Your task to perform on an android device: What's the weather like in Los Angeles? Image 0: 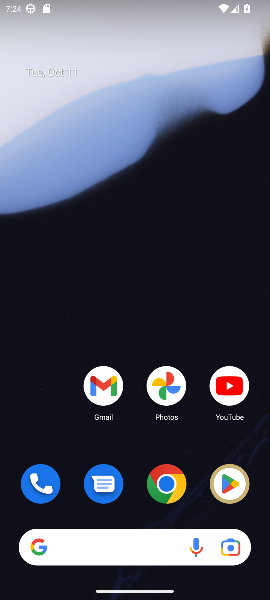
Step 0: click (167, 485)
Your task to perform on an android device: What's the weather like in Los Angeles? Image 1: 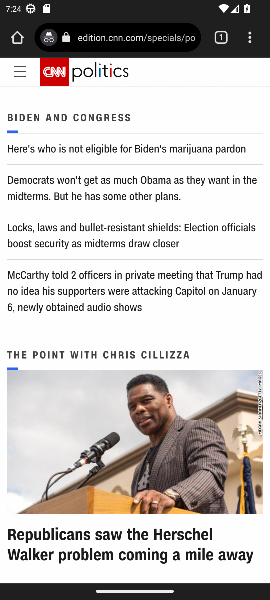
Step 1: click (153, 41)
Your task to perform on an android device: What's the weather like in Los Angeles? Image 2: 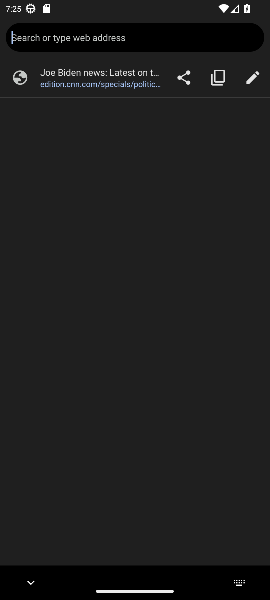
Step 2: type "What's the weather like in Los Angeles?"
Your task to perform on an android device: What's the weather like in Los Angeles? Image 3: 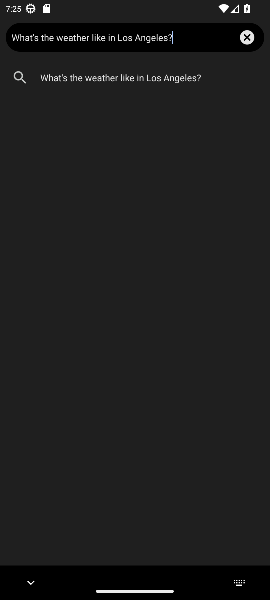
Step 3: click (104, 77)
Your task to perform on an android device: What's the weather like in Los Angeles? Image 4: 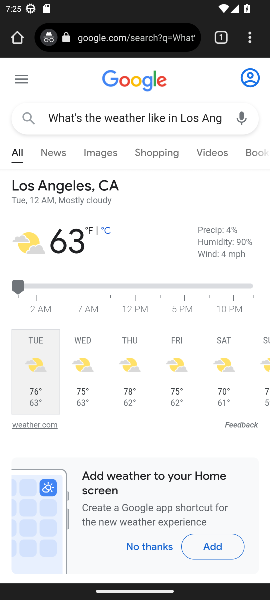
Step 4: task complete